Your task to perform on an android device: turn on translation in the chrome app Image 0: 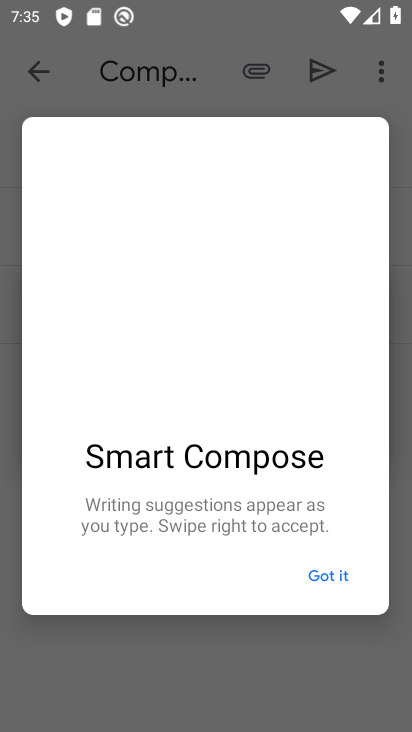
Step 0: press home button
Your task to perform on an android device: turn on translation in the chrome app Image 1: 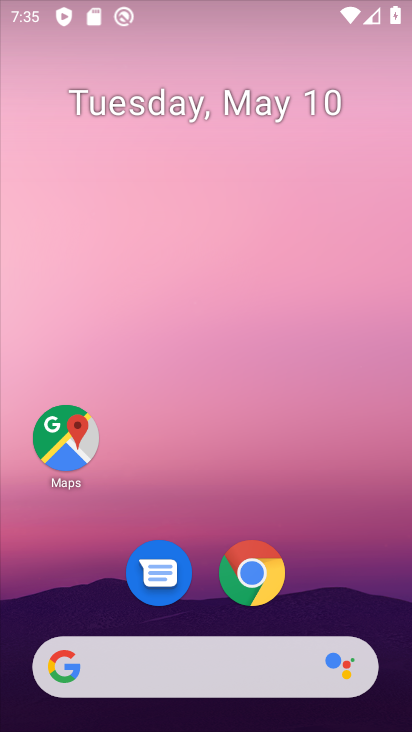
Step 1: drag from (364, 602) to (337, 152)
Your task to perform on an android device: turn on translation in the chrome app Image 2: 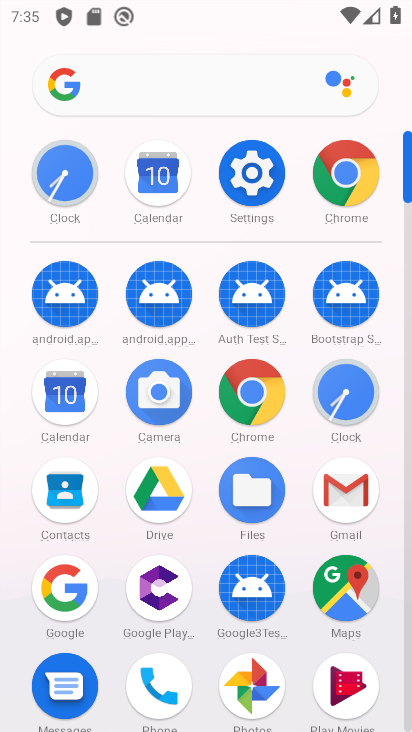
Step 2: click (235, 407)
Your task to perform on an android device: turn on translation in the chrome app Image 3: 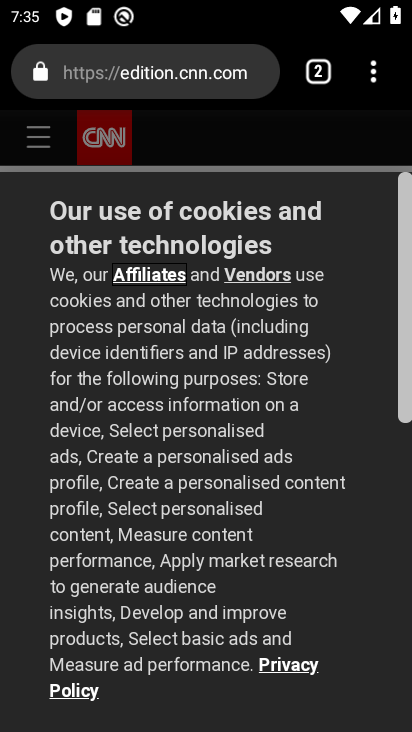
Step 3: drag from (374, 85) to (139, 567)
Your task to perform on an android device: turn on translation in the chrome app Image 4: 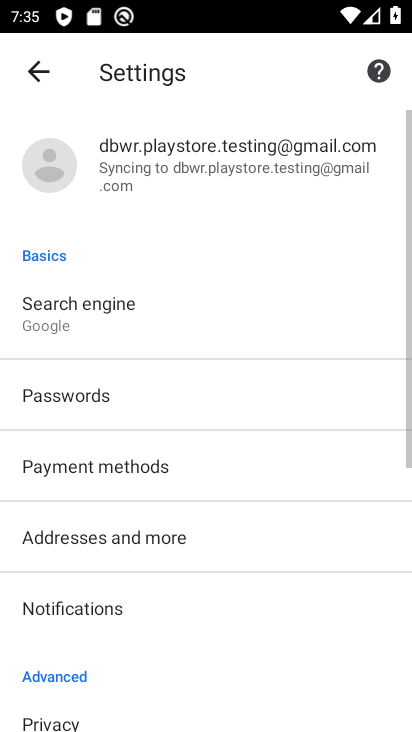
Step 4: drag from (229, 639) to (261, 267)
Your task to perform on an android device: turn on translation in the chrome app Image 5: 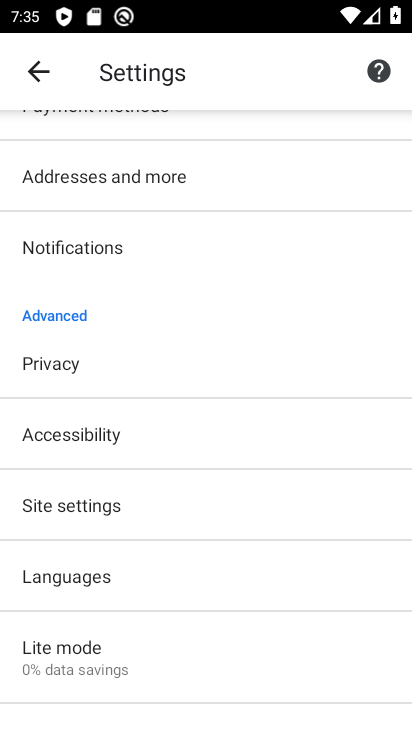
Step 5: drag from (178, 689) to (234, 349)
Your task to perform on an android device: turn on translation in the chrome app Image 6: 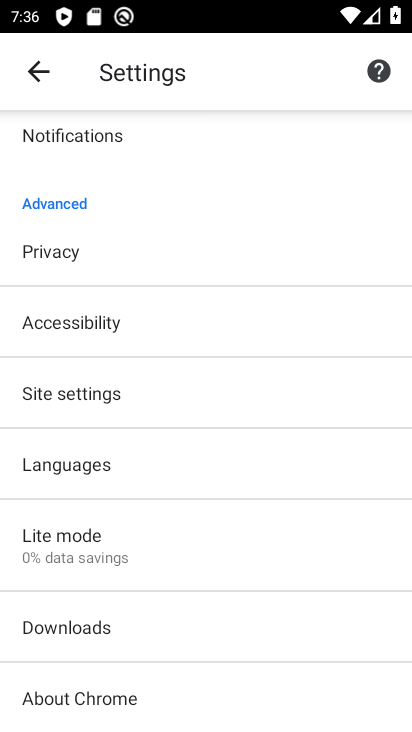
Step 6: click (102, 481)
Your task to perform on an android device: turn on translation in the chrome app Image 7: 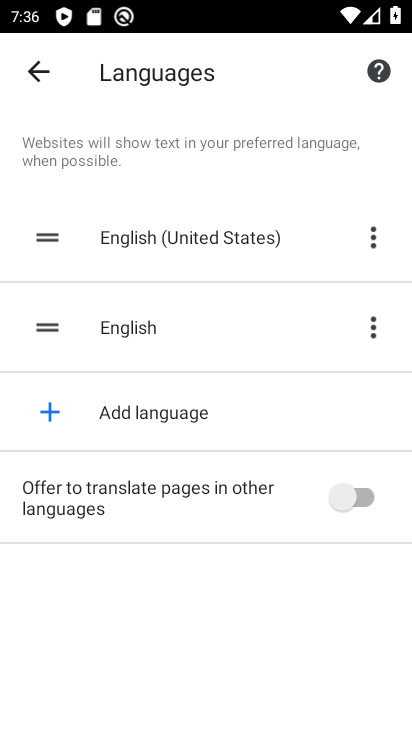
Step 7: click (366, 490)
Your task to perform on an android device: turn on translation in the chrome app Image 8: 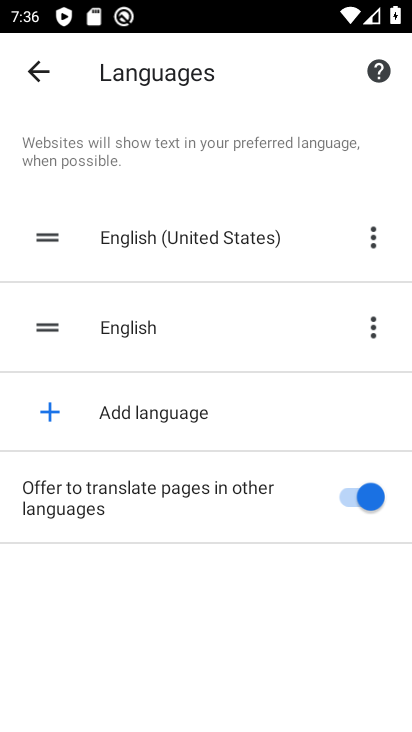
Step 8: task complete